Your task to perform on an android device: turn on sleep mode Image 0: 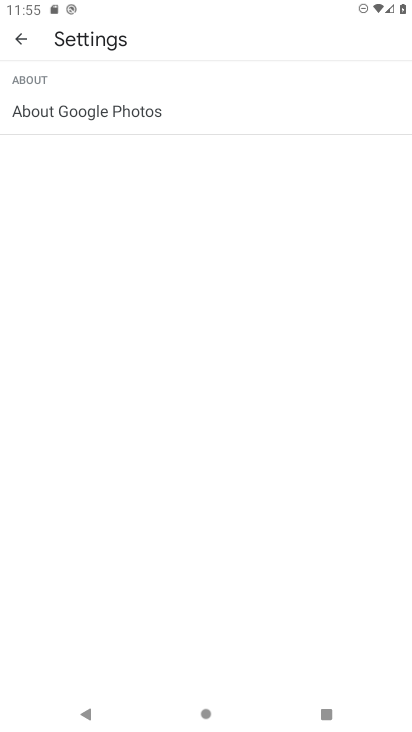
Step 0: press home button
Your task to perform on an android device: turn on sleep mode Image 1: 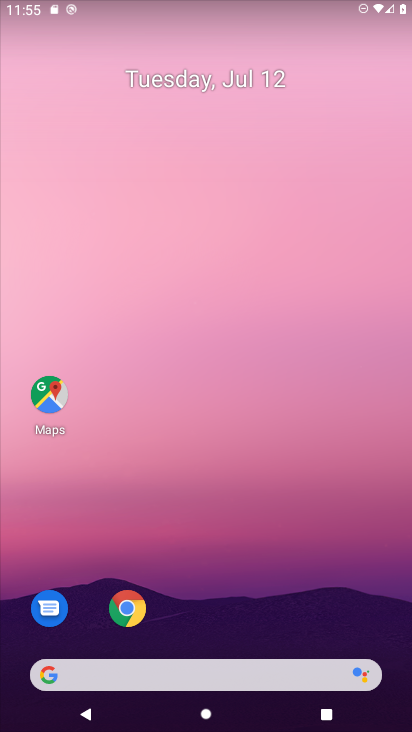
Step 1: drag from (241, 721) to (238, 87)
Your task to perform on an android device: turn on sleep mode Image 2: 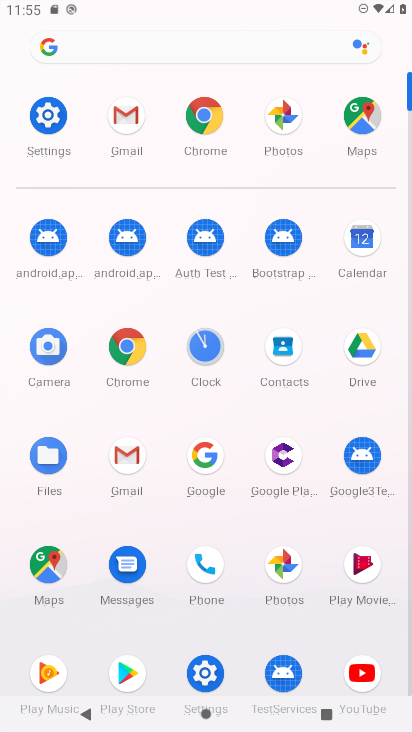
Step 2: click (43, 117)
Your task to perform on an android device: turn on sleep mode Image 3: 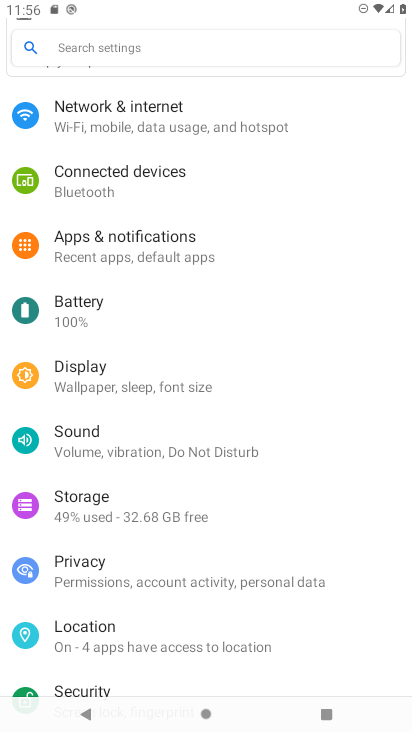
Step 3: click (143, 370)
Your task to perform on an android device: turn on sleep mode Image 4: 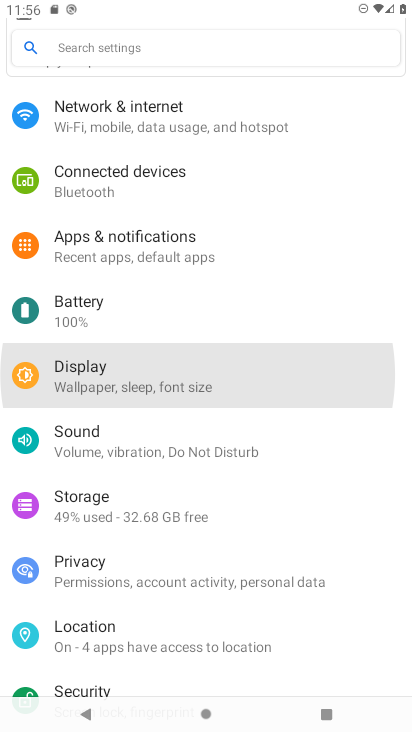
Step 4: click (136, 377)
Your task to perform on an android device: turn on sleep mode Image 5: 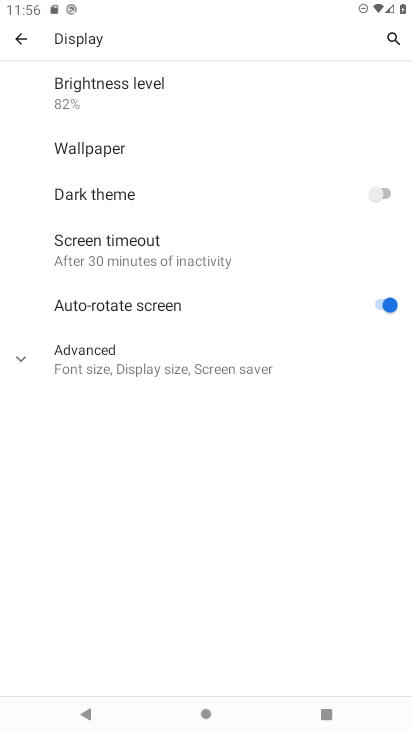
Step 5: task complete